Your task to perform on an android device: toggle data saver in the chrome app Image 0: 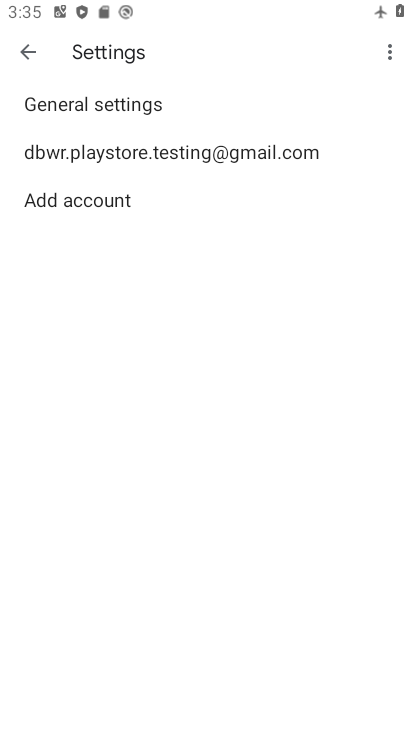
Step 0: press home button
Your task to perform on an android device: toggle data saver in the chrome app Image 1: 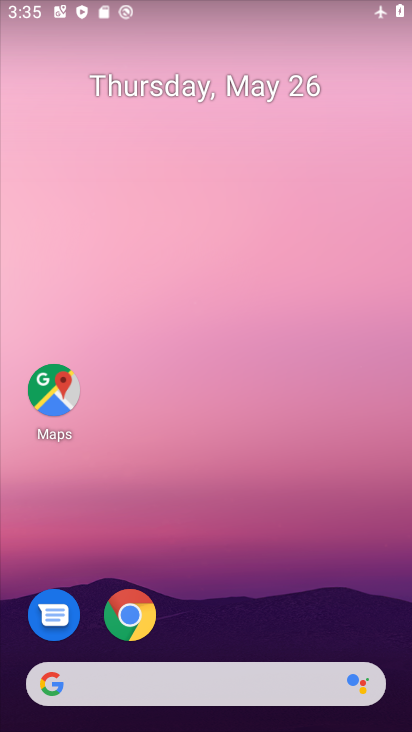
Step 1: click (153, 613)
Your task to perform on an android device: toggle data saver in the chrome app Image 2: 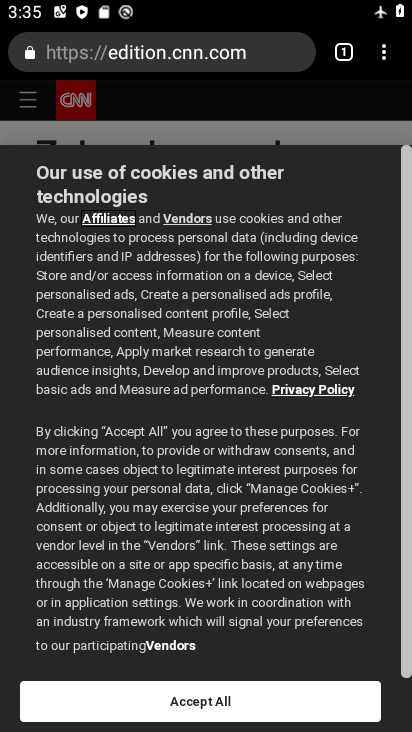
Step 2: click (386, 49)
Your task to perform on an android device: toggle data saver in the chrome app Image 3: 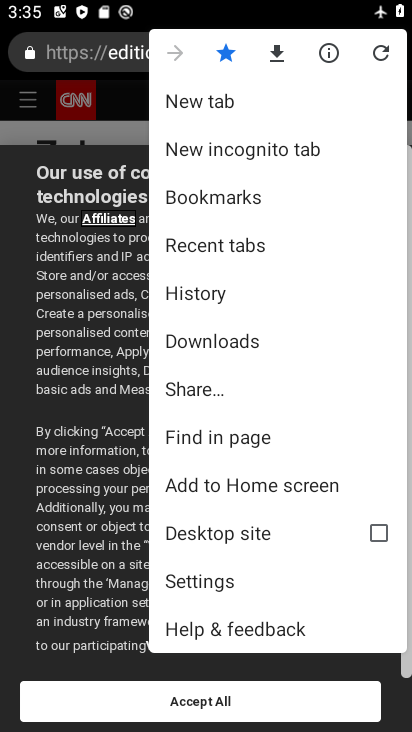
Step 3: drag from (250, 542) to (302, 110)
Your task to perform on an android device: toggle data saver in the chrome app Image 4: 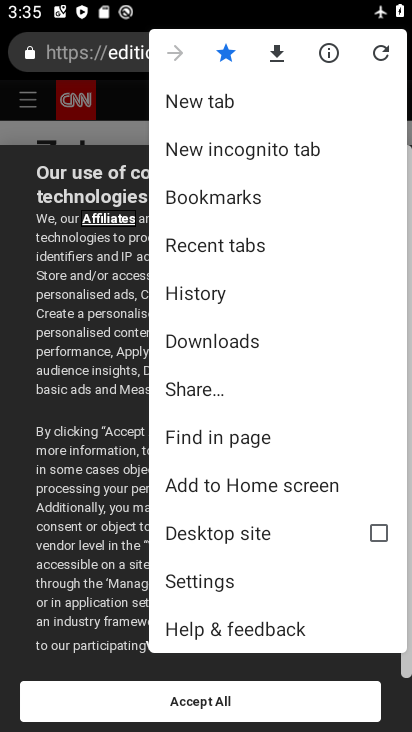
Step 4: click (222, 588)
Your task to perform on an android device: toggle data saver in the chrome app Image 5: 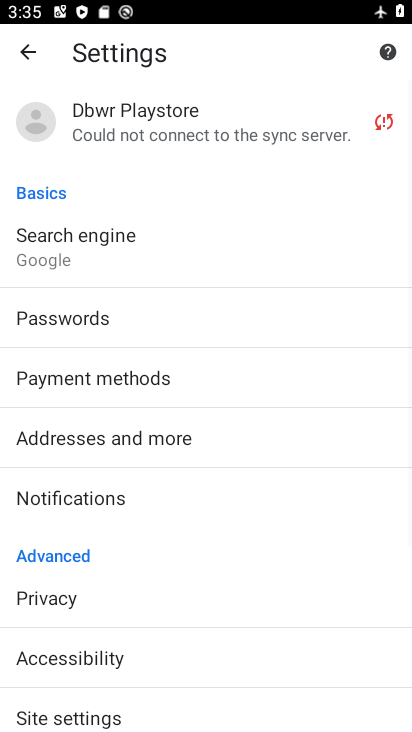
Step 5: drag from (218, 642) to (170, 105)
Your task to perform on an android device: toggle data saver in the chrome app Image 6: 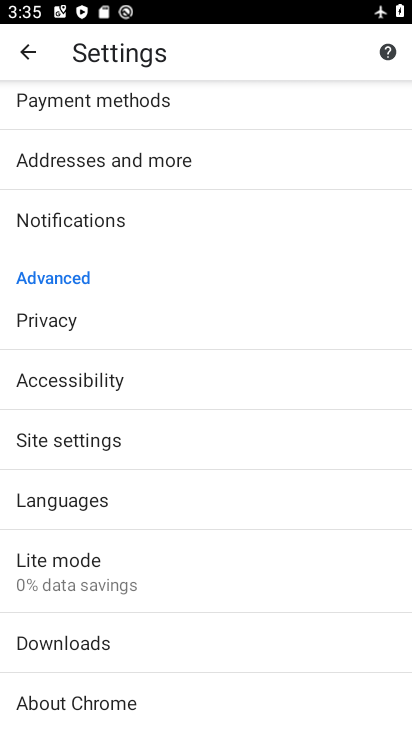
Step 6: click (36, 556)
Your task to perform on an android device: toggle data saver in the chrome app Image 7: 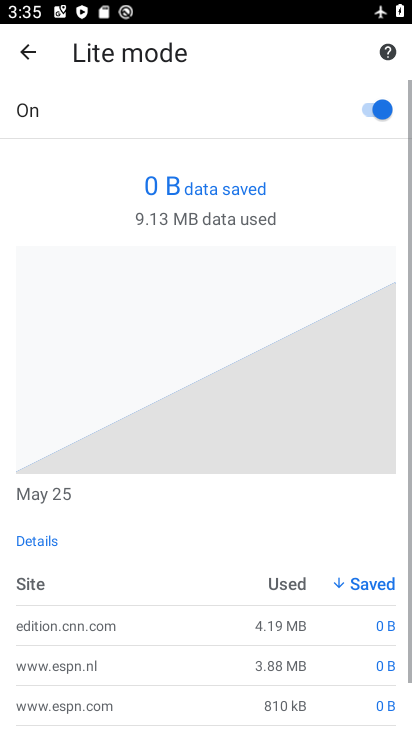
Step 7: click (370, 103)
Your task to perform on an android device: toggle data saver in the chrome app Image 8: 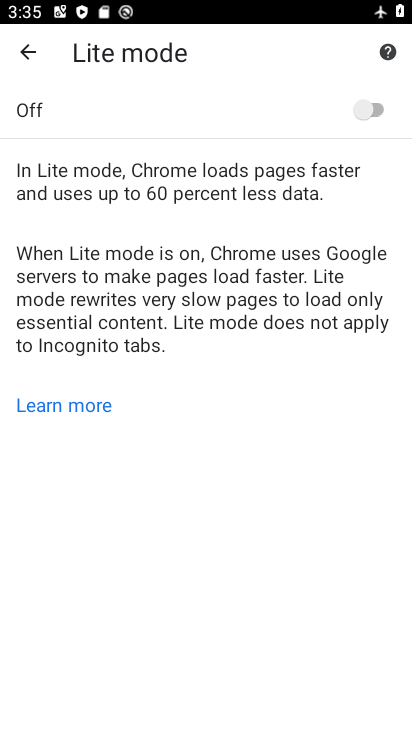
Step 8: task complete